Your task to perform on an android device: Is it going to rain today? Image 0: 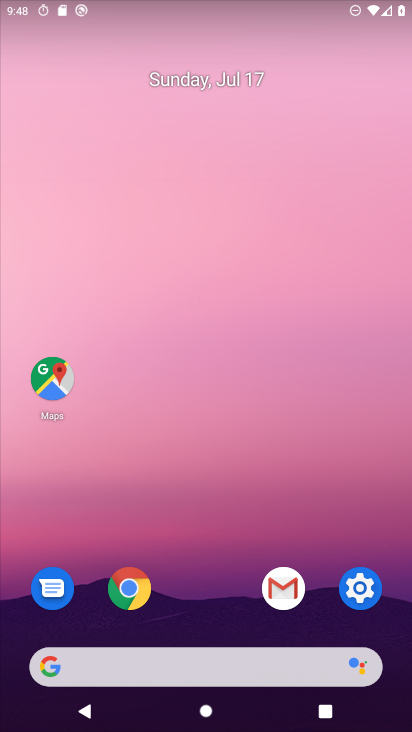
Step 0: click (197, 662)
Your task to perform on an android device: Is it going to rain today? Image 1: 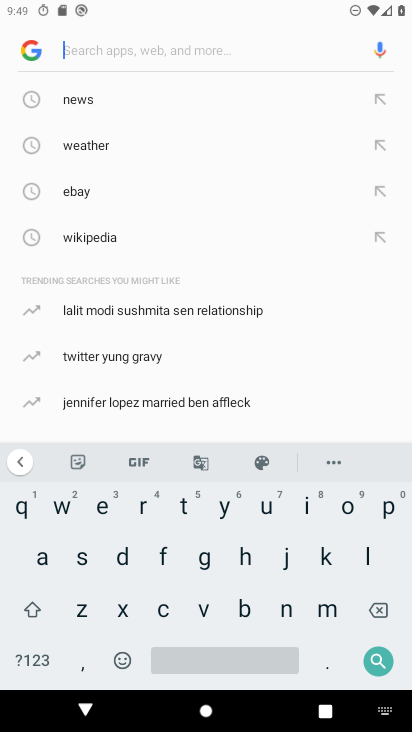
Step 1: click (144, 513)
Your task to perform on an android device: Is it going to rain today? Image 2: 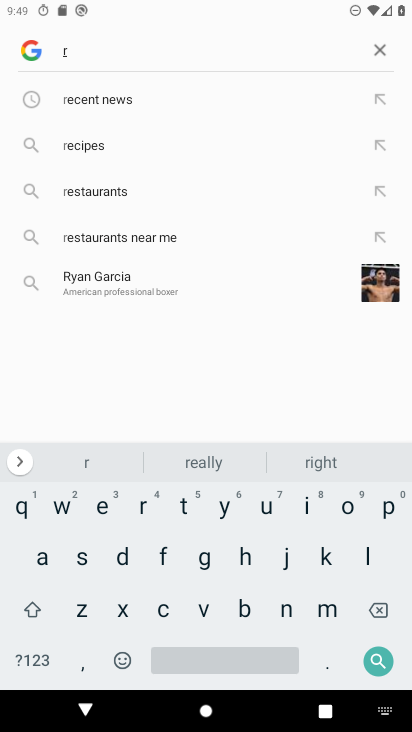
Step 2: click (45, 555)
Your task to perform on an android device: Is it going to rain today? Image 3: 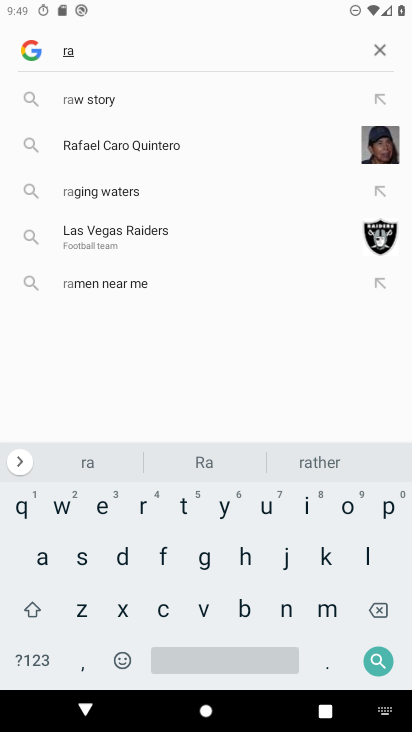
Step 3: click (305, 503)
Your task to perform on an android device: Is it going to rain today? Image 4: 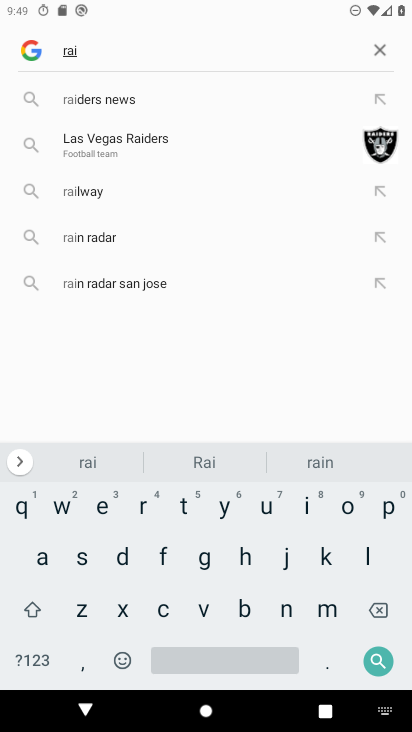
Step 4: click (288, 602)
Your task to perform on an android device: Is it going to rain today? Image 5: 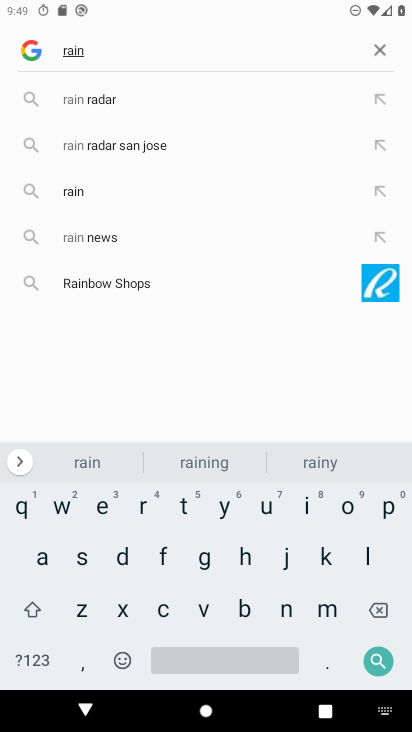
Step 5: click (194, 661)
Your task to perform on an android device: Is it going to rain today? Image 6: 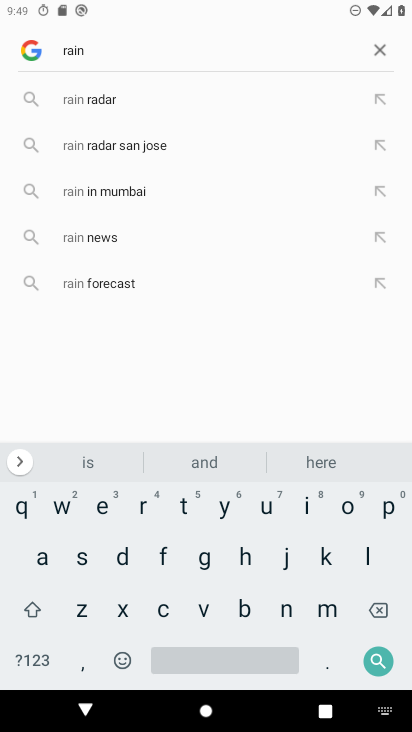
Step 6: click (181, 503)
Your task to perform on an android device: Is it going to rain today? Image 7: 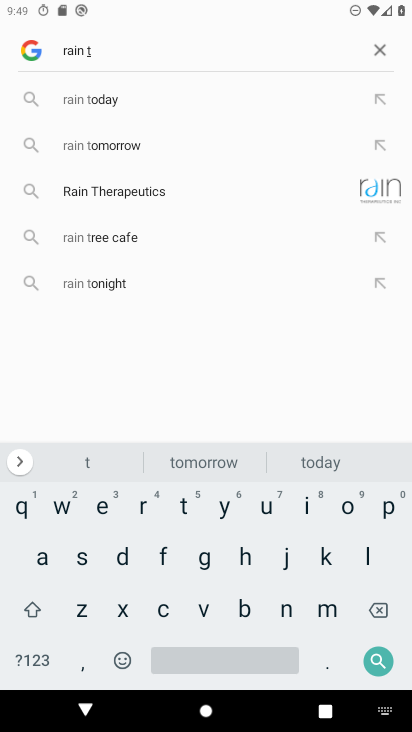
Step 7: click (105, 97)
Your task to perform on an android device: Is it going to rain today? Image 8: 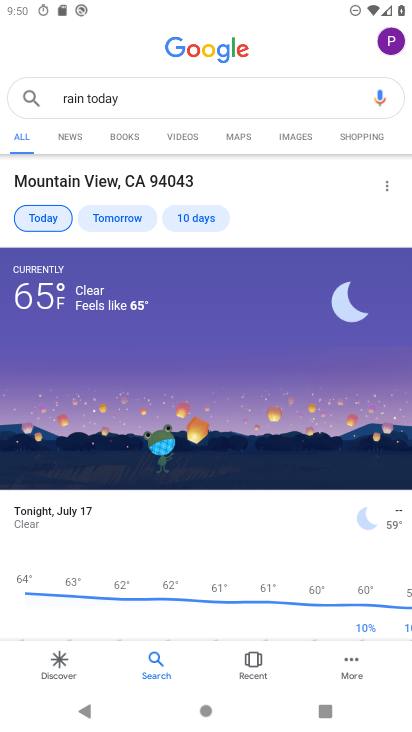
Step 8: task complete